Your task to perform on an android device: search for starred emails in the gmail app Image 0: 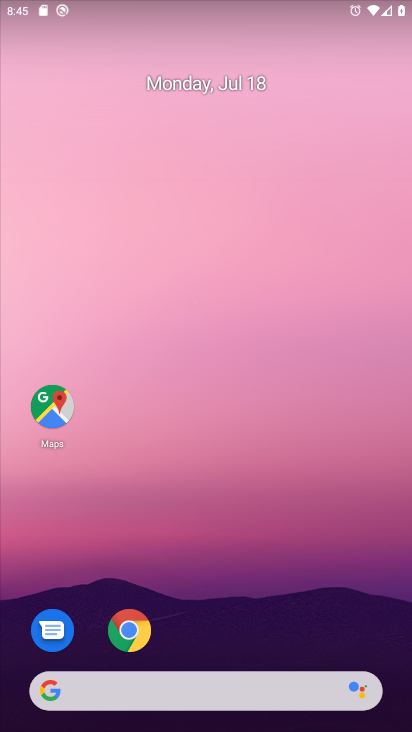
Step 0: drag from (211, 628) to (235, 149)
Your task to perform on an android device: search for starred emails in the gmail app Image 1: 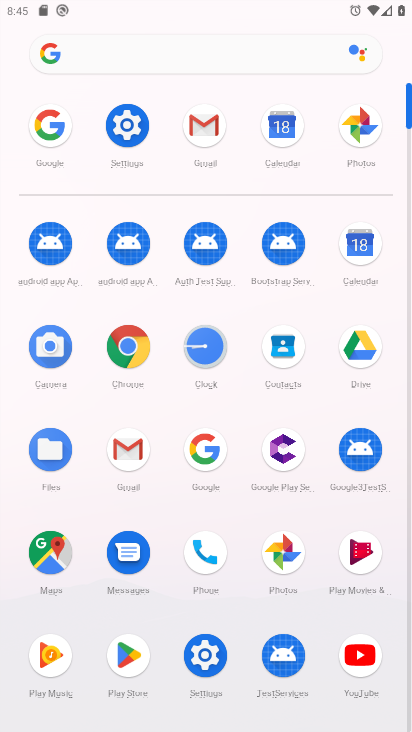
Step 1: click (187, 142)
Your task to perform on an android device: search for starred emails in the gmail app Image 2: 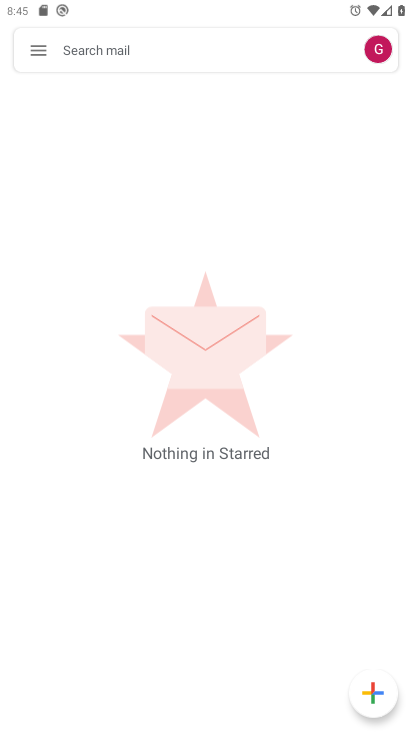
Step 2: click (43, 61)
Your task to perform on an android device: search for starred emails in the gmail app Image 3: 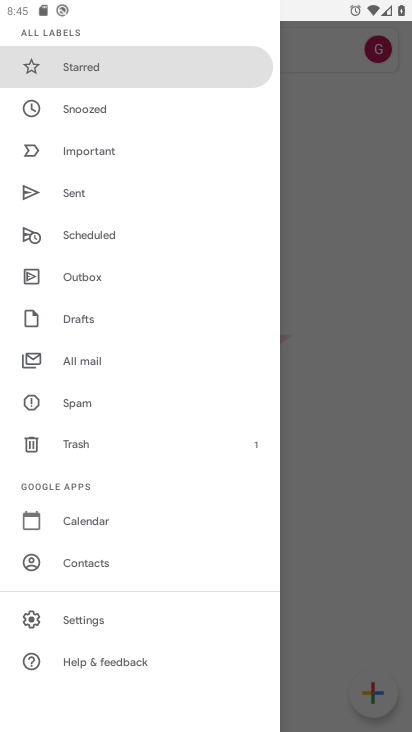
Step 3: click (139, 80)
Your task to perform on an android device: search for starred emails in the gmail app Image 4: 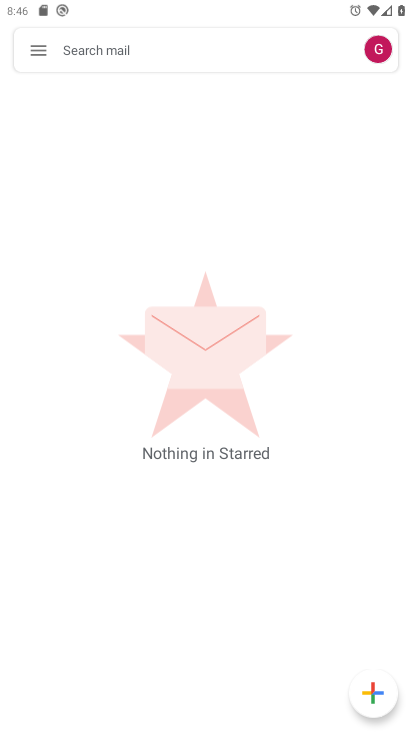
Step 4: task complete